Your task to perform on an android device: Open the phone app and click the voicemail tab. Image 0: 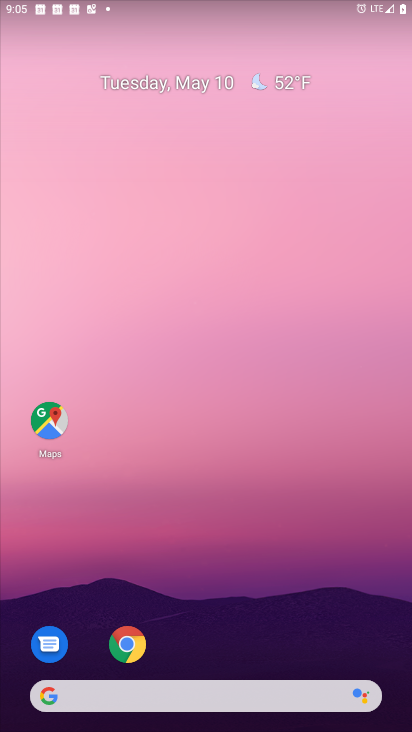
Step 0: drag from (387, 656) to (285, 208)
Your task to perform on an android device: Open the phone app and click the voicemail tab. Image 1: 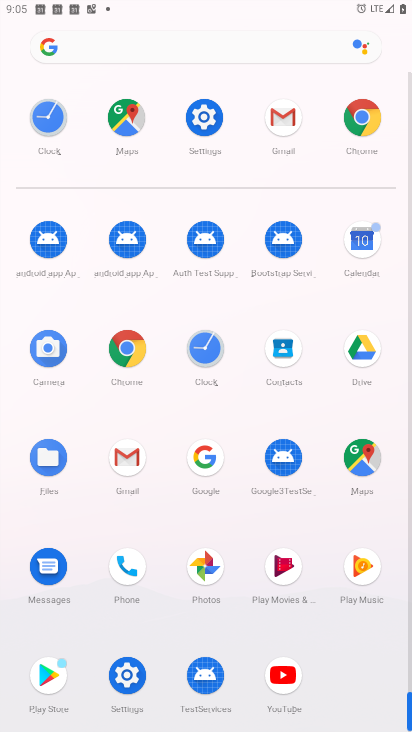
Step 1: click (124, 560)
Your task to perform on an android device: Open the phone app and click the voicemail tab. Image 2: 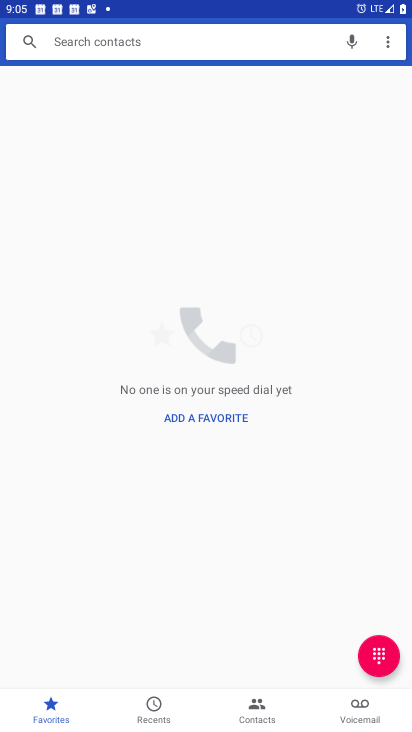
Step 2: click (361, 708)
Your task to perform on an android device: Open the phone app and click the voicemail tab. Image 3: 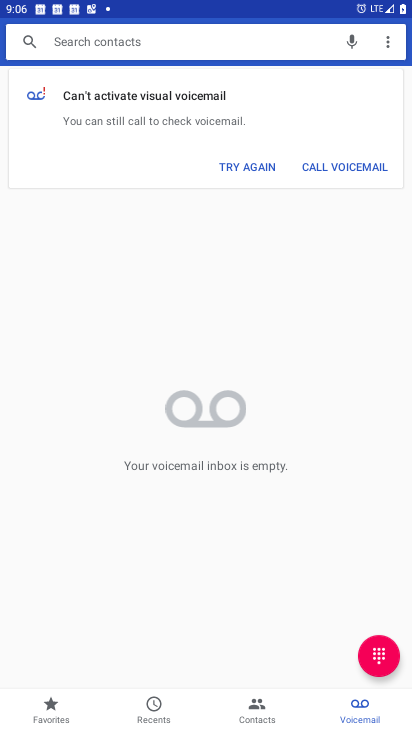
Step 3: task complete